Your task to perform on an android device: turn on data saver in the chrome app Image 0: 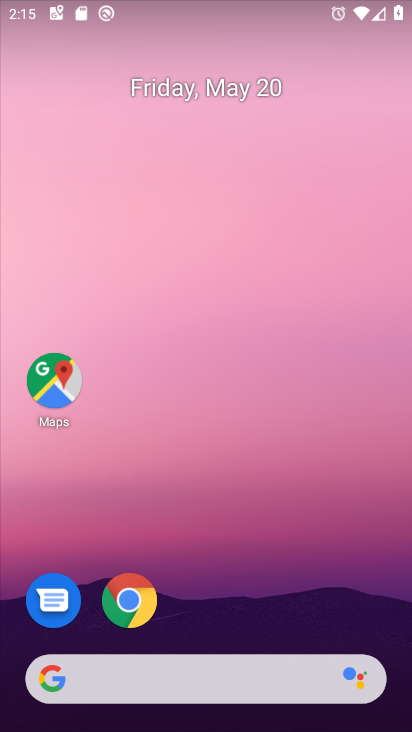
Step 0: click (154, 605)
Your task to perform on an android device: turn on data saver in the chrome app Image 1: 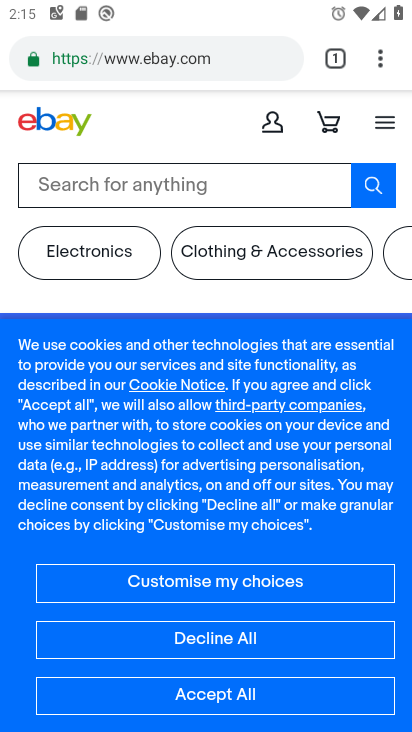
Step 1: click (378, 56)
Your task to perform on an android device: turn on data saver in the chrome app Image 2: 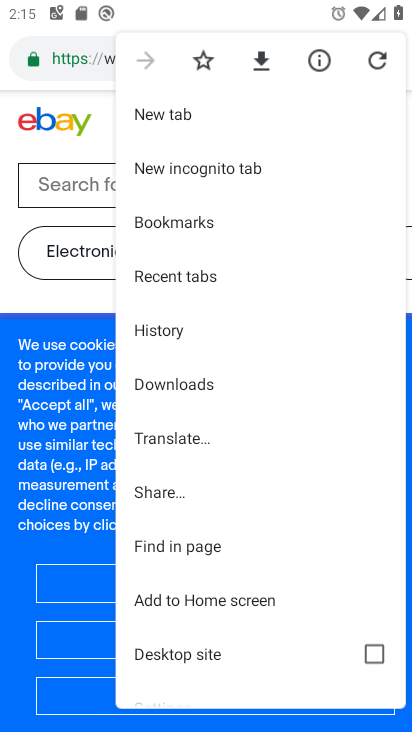
Step 2: drag from (212, 634) to (260, 368)
Your task to perform on an android device: turn on data saver in the chrome app Image 3: 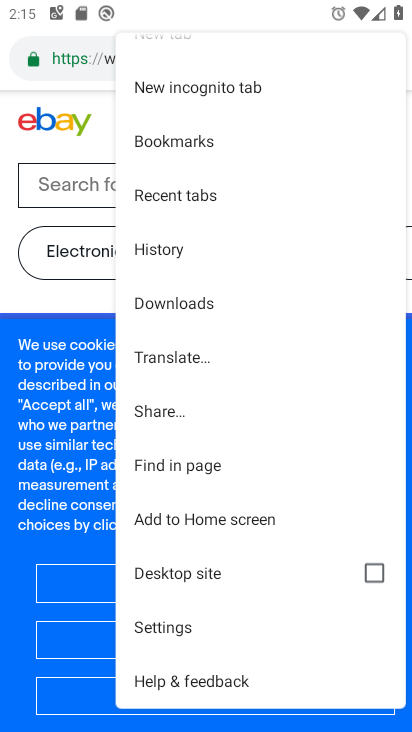
Step 3: click (171, 621)
Your task to perform on an android device: turn on data saver in the chrome app Image 4: 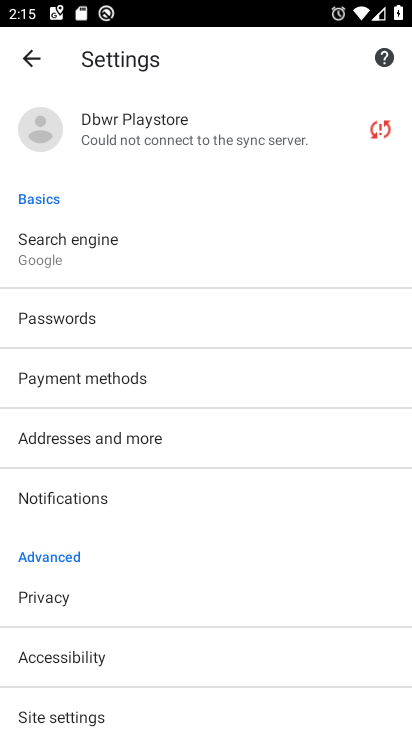
Step 4: drag from (222, 632) to (276, 270)
Your task to perform on an android device: turn on data saver in the chrome app Image 5: 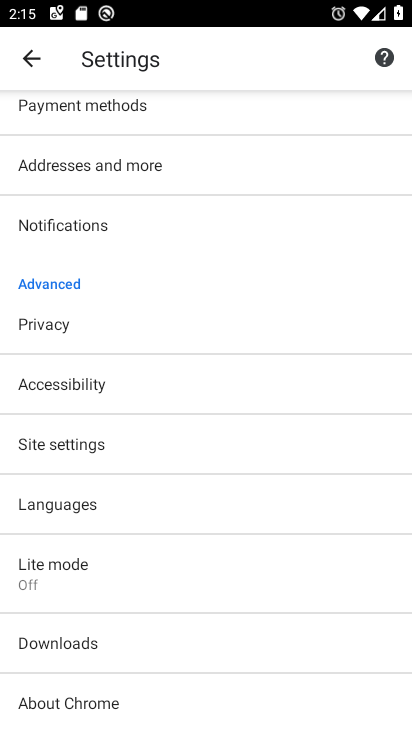
Step 5: click (98, 575)
Your task to perform on an android device: turn on data saver in the chrome app Image 6: 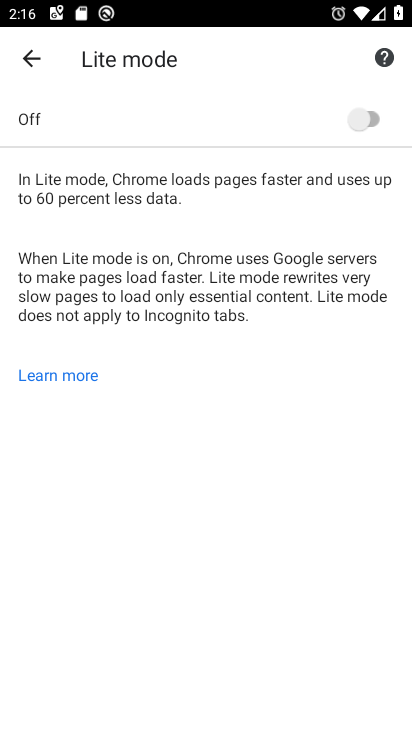
Step 6: click (341, 127)
Your task to perform on an android device: turn on data saver in the chrome app Image 7: 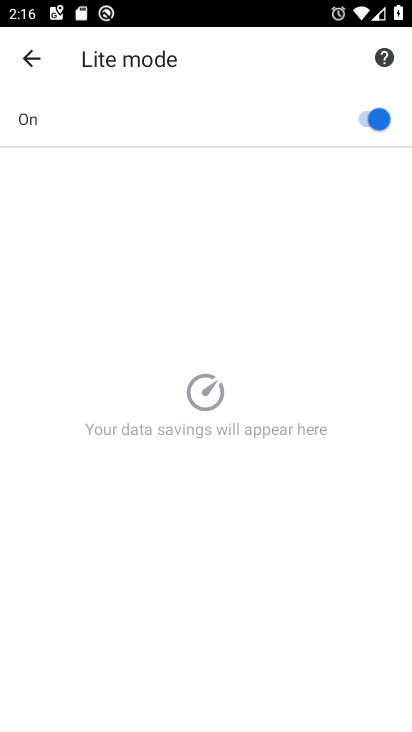
Step 7: task complete